Your task to perform on an android device: turn on wifi Image 0: 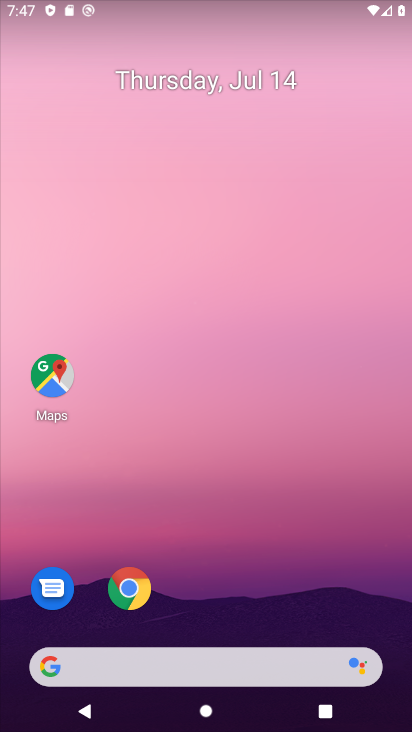
Step 0: drag from (225, 638) to (188, 113)
Your task to perform on an android device: turn on wifi Image 1: 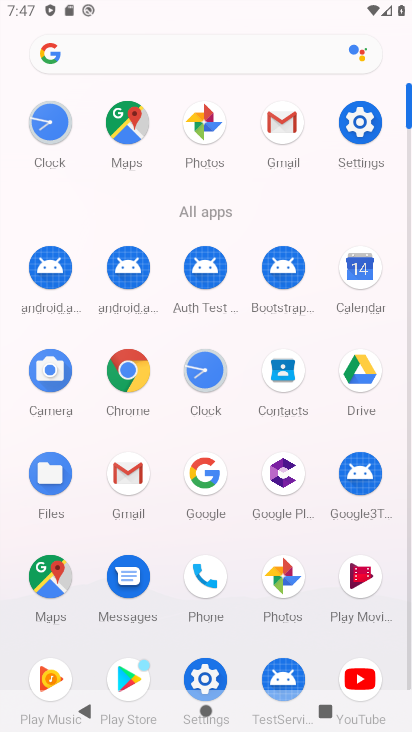
Step 1: click (358, 133)
Your task to perform on an android device: turn on wifi Image 2: 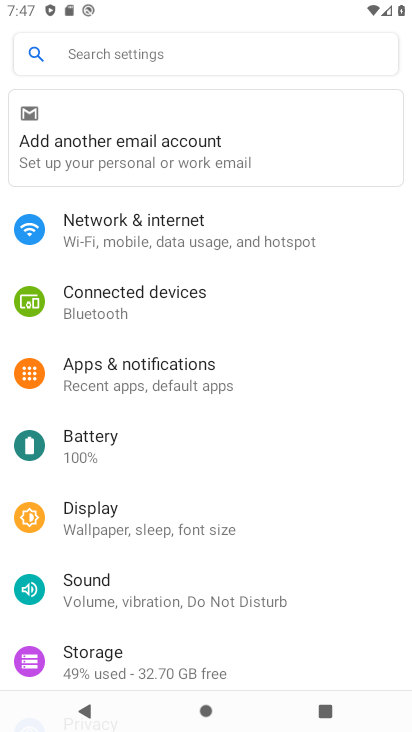
Step 2: click (76, 249)
Your task to perform on an android device: turn on wifi Image 3: 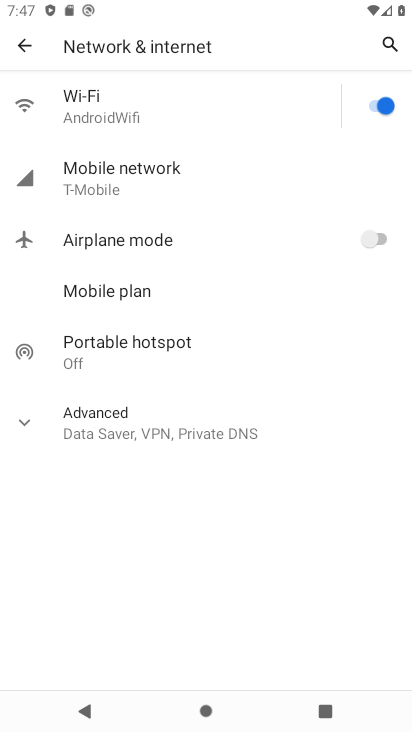
Step 3: task complete